Your task to perform on an android device: turn smart compose on in the gmail app Image 0: 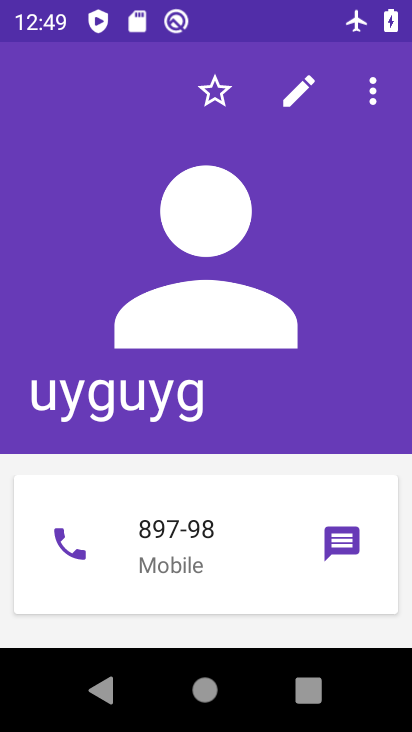
Step 0: press home button
Your task to perform on an android device: turn smart compose on in the gmail app Image 1: 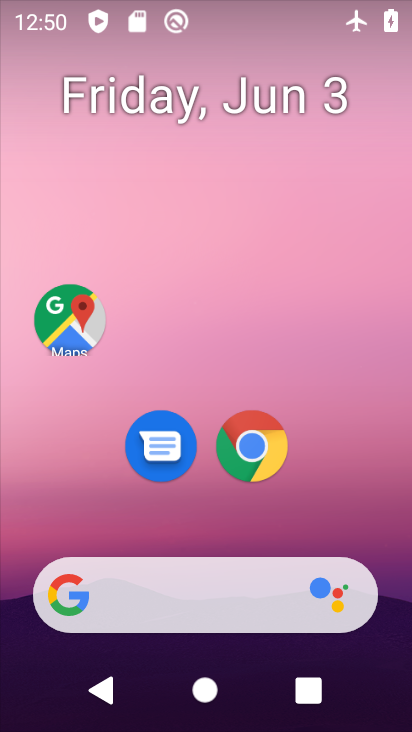
Step 1: drag from (236, 647) to (340, 46)
Your task to perform on an android device: turn smart compose on in the gmail app Image 2: 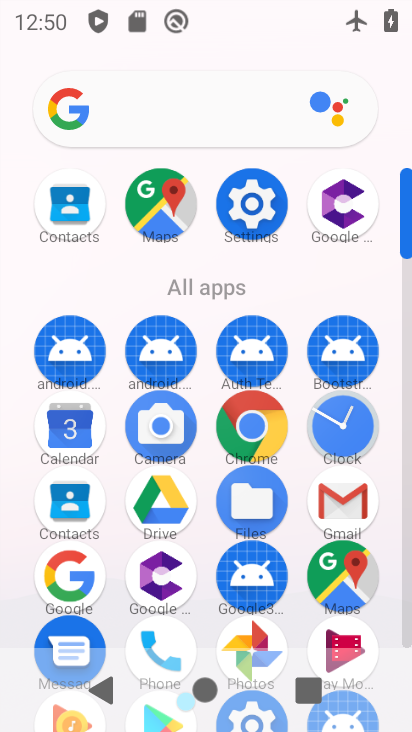
Step 2: click (329, 480)
Your task to perform on an android device: turn smart compose on in the gmail app Image 3: 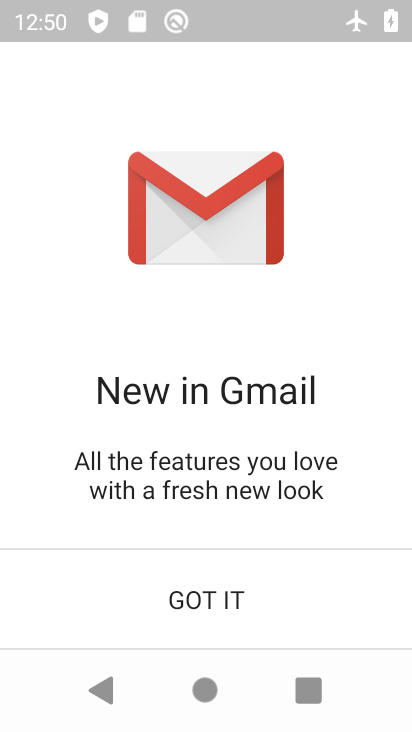
Step 3: click (169, 604)
Your task to perform on an android device: turn smart compose on in the gmail app Image 4: 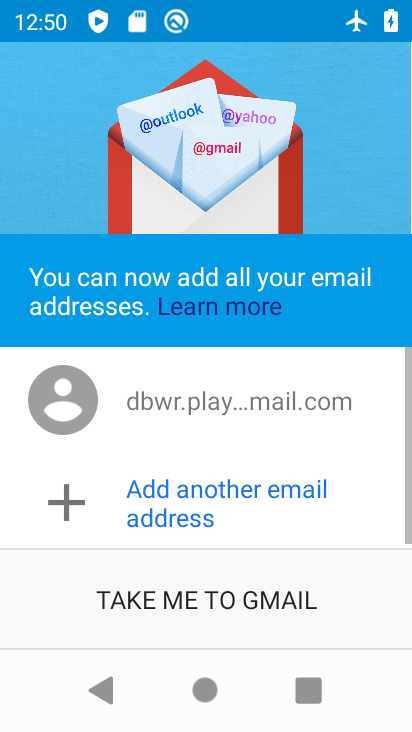
Step 4: click (169, 604)
Your task to perform on an android device: turn smart compose on in the gmail app Image 5: 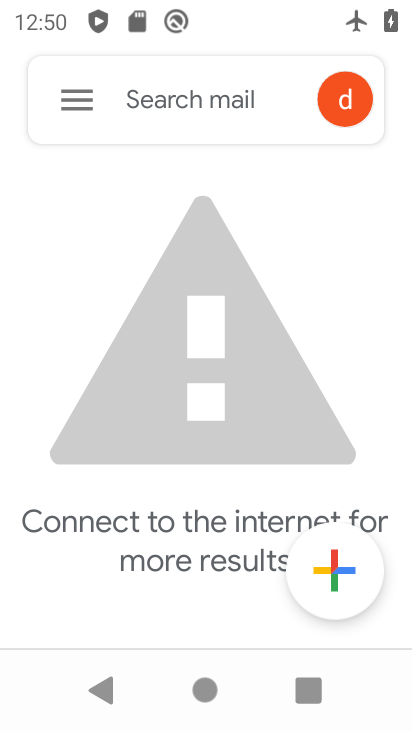
Step 5: task complete